Your task to perform on an android device: What is the recent news? Image 0: 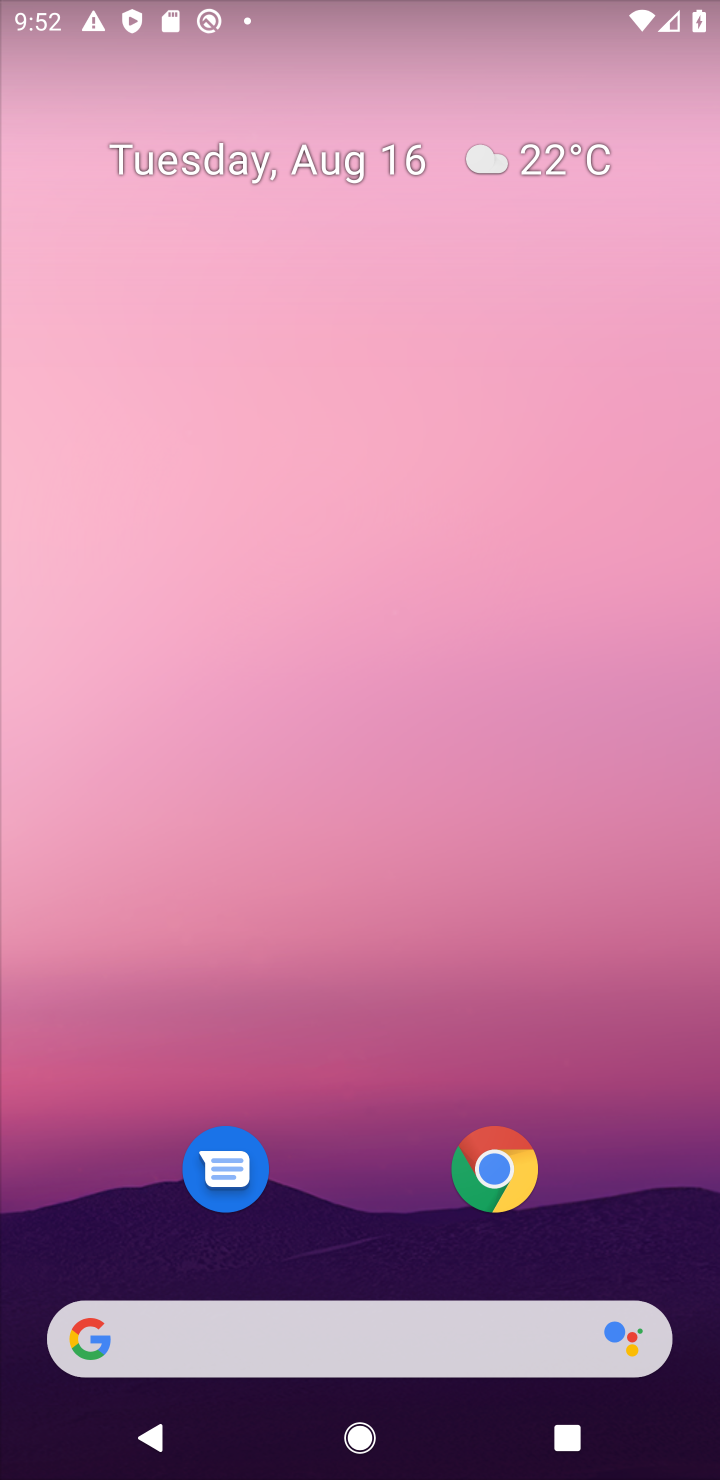
Step 0: click (327, 1347)
Your task to perform on an android device: What is the recent news? Image 1: 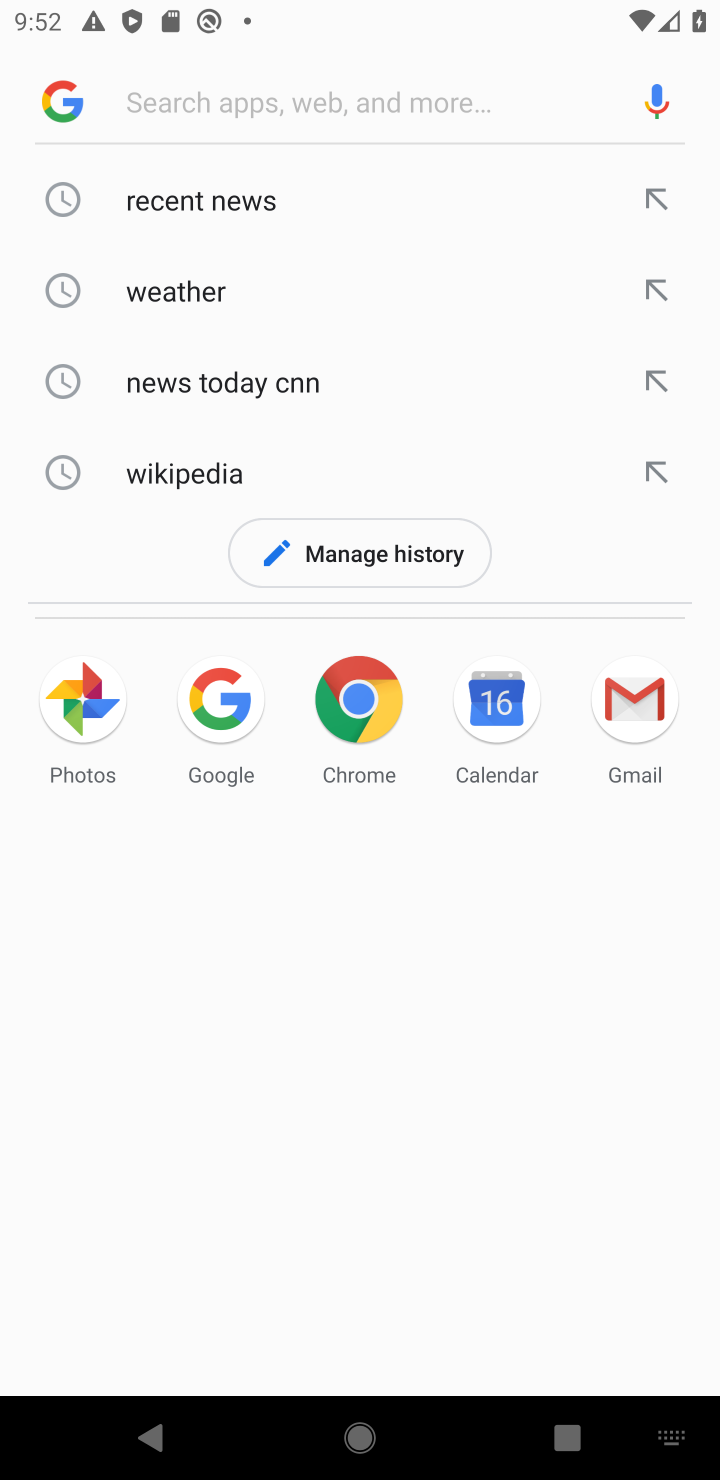
Step 1: click (195, 207)
Your task to perform on an android device: What is the recent news? Image 2: 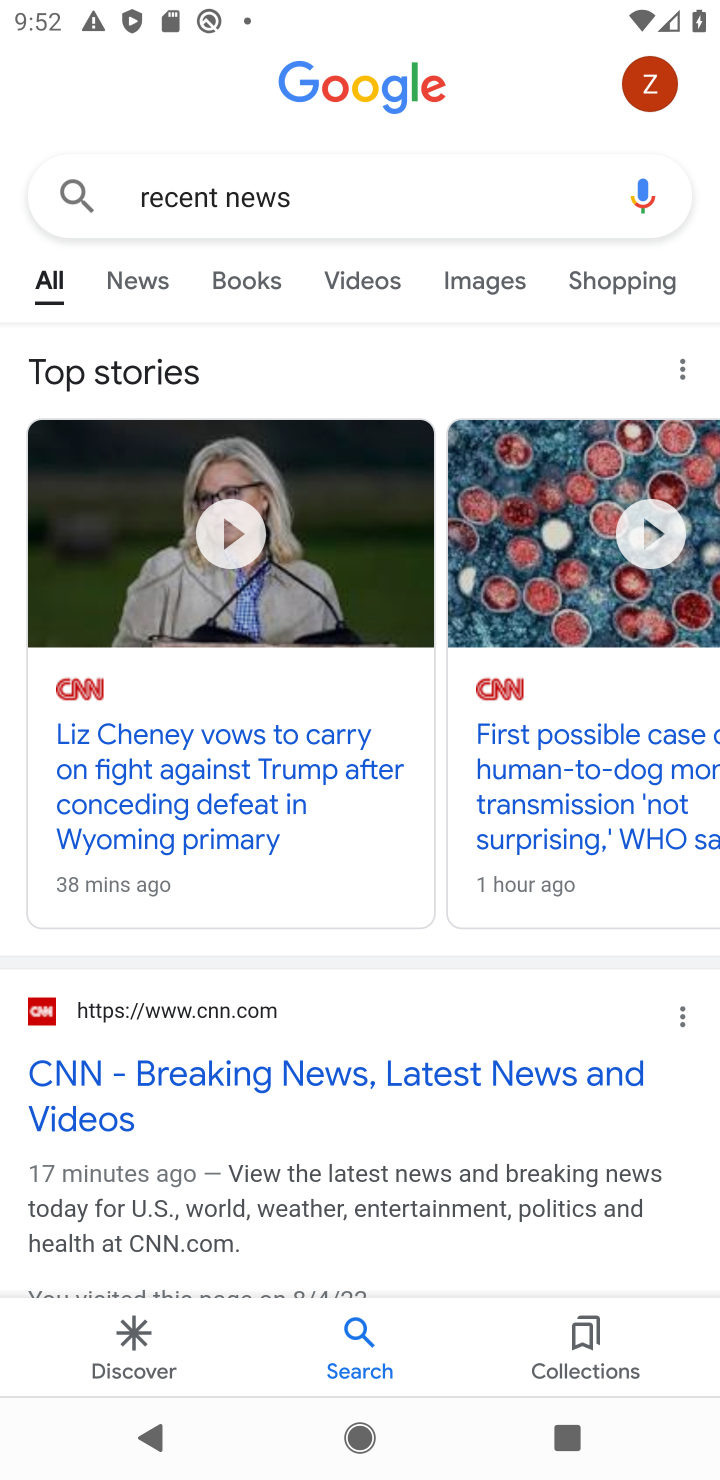
Step 2: task complete